Your task to perform on an android device: change the clock display to analog Image 0: 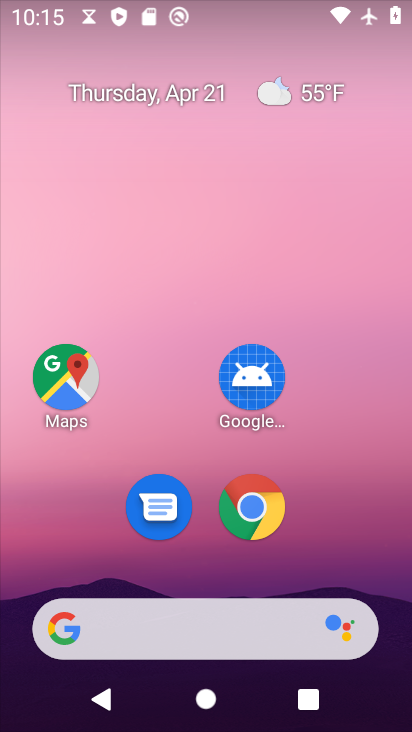
Step 0: click (206, 162)
Your task to perform on an android device: change the clock display to analog Image 1: 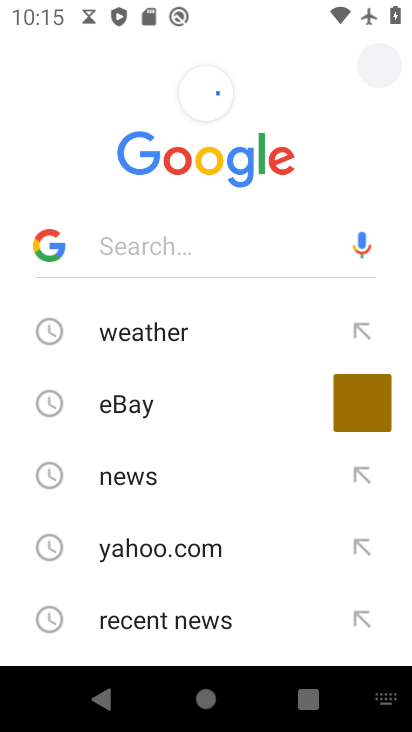
Step 1: press home button
Your task to perform on an android device: change the clock display to analog Image 2: 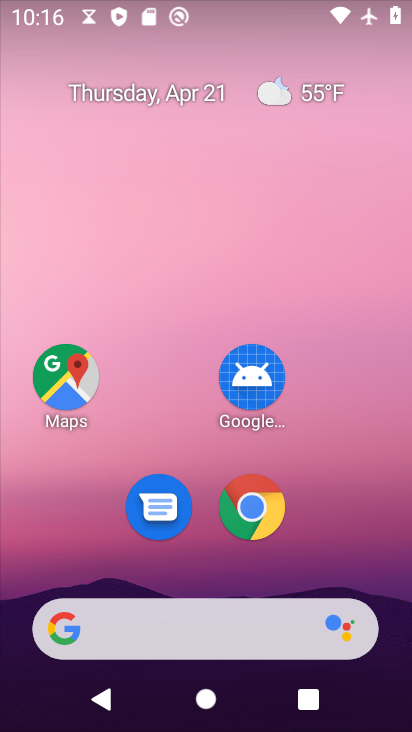
Step 2: drag from (327, 482) to (282, 138)
Your task to perform on an android device: change the clock display to analog Image 3: 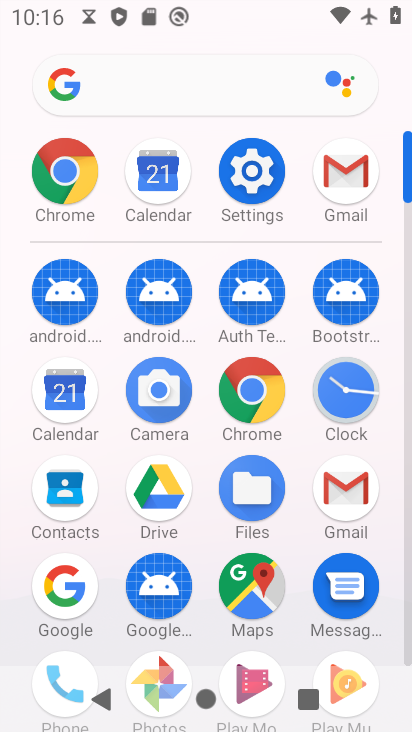
Step 3: click (349, 374)
Your task to perform on an android device: change the clock display to analog Image 4: 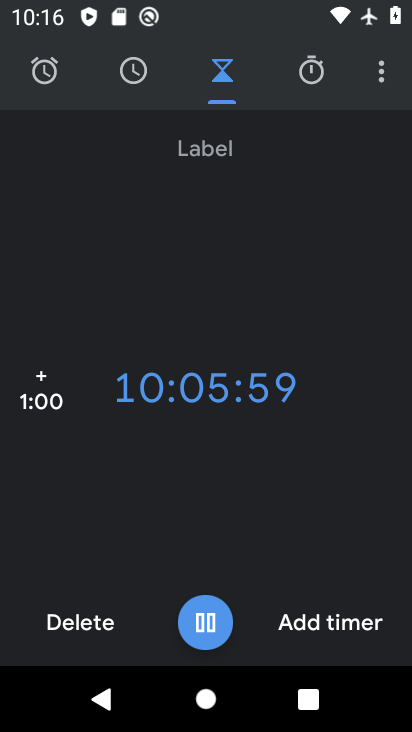
Step 4: click (385, 91)
Your task to perform on an android device: change the clock display to analog Image 5: 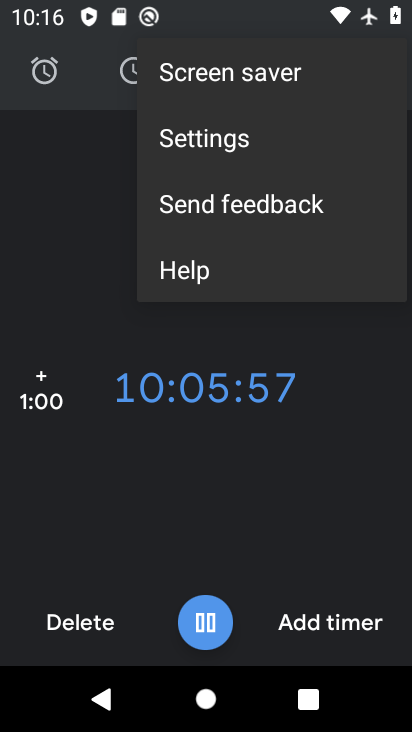
Step 5: click (212, 132)
Your task to perform on an android device: change the clock display to analog Image 6: 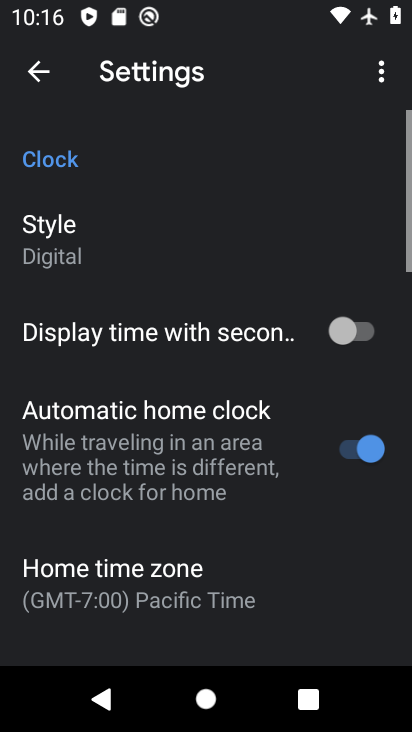
Step 6: click (113, 263)
Your task to perform on an android device: change the clock display to analog Image 7: 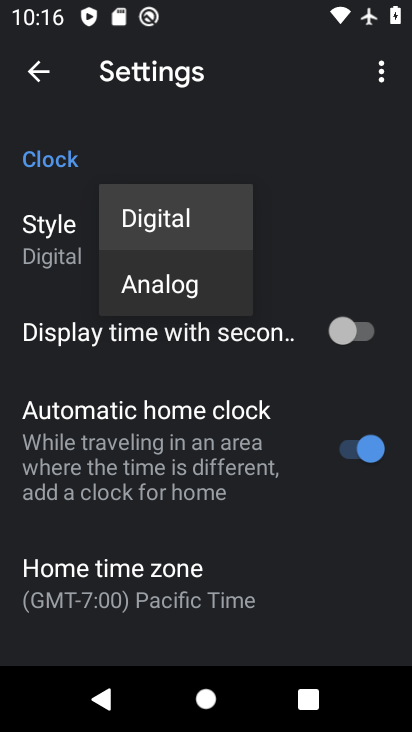
Step 7: click (137, 284)
Your task to perform on an android device: change the clock display to analog Image 8: 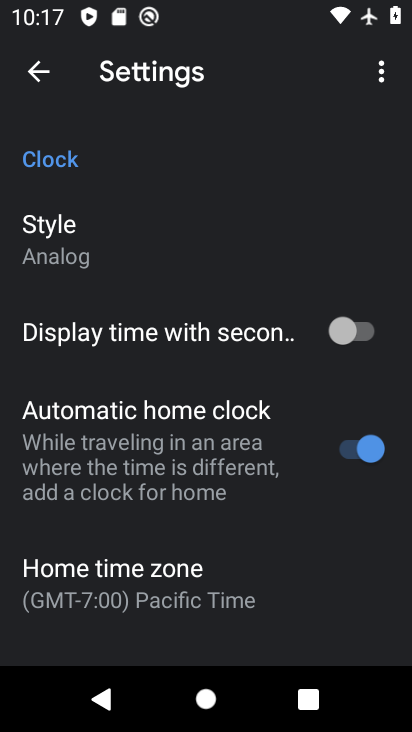
Step 8: task complete